Your task to perform on an android device: Do I have any events tomorrow? Image 0: 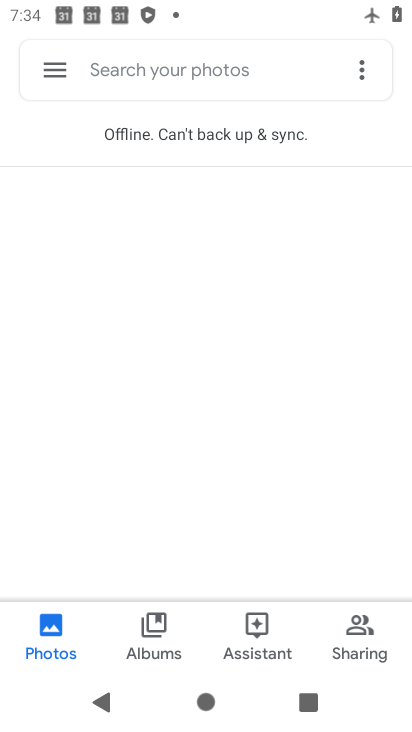
Step 0: press home button
Your task to perform on an android device: Do I have any events tomorrow? Image 1: 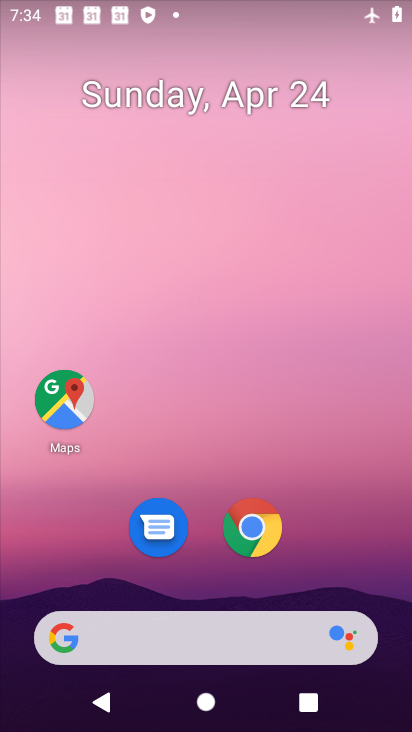
Step 1: drag from (349, 562) to (246, 26)
Your task to perform on an android device: Do I have any events tomorrow? Image 2: 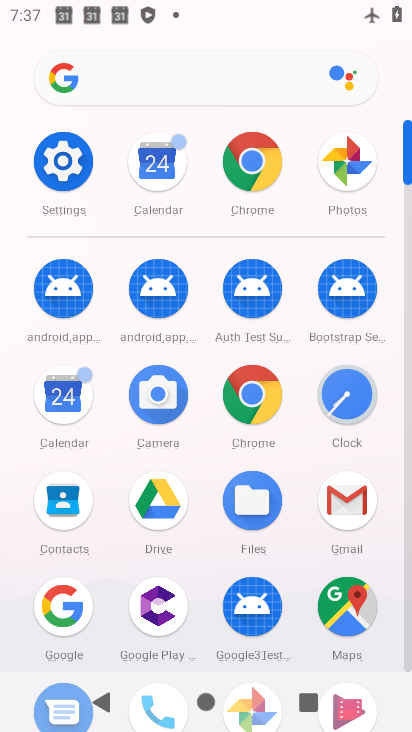
Step 2: click (74, 409)
Your task to perform on an android device: Do I have any events tomorrow? Image 3: 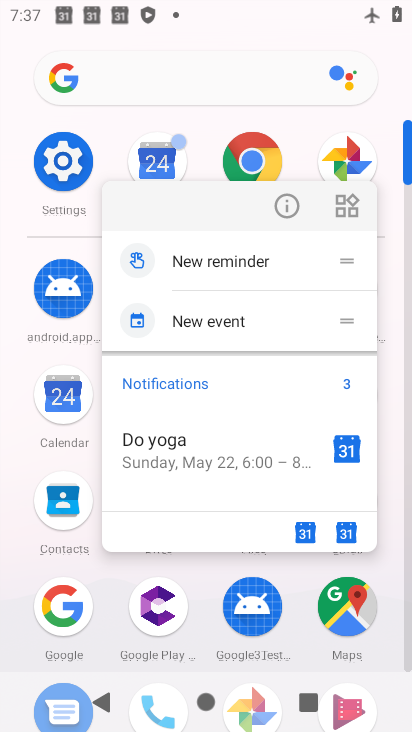
Step 3: click (63, 392)
Your task to perform on an android device: Do I have any events tomorrow? Image 4: 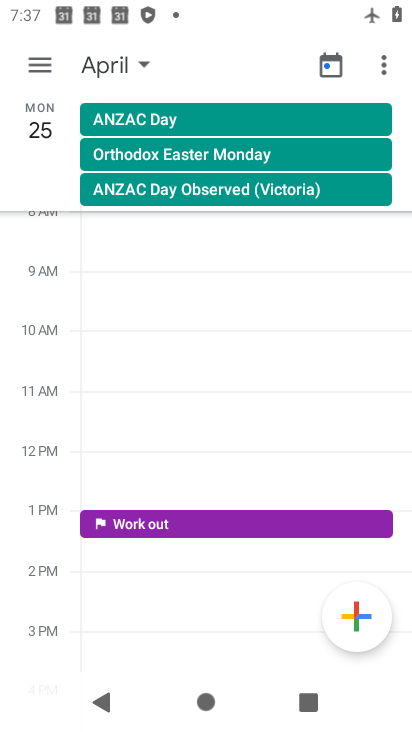
Step 4: click (112, 66)
Your task to perform on an android device: Do I have any events tomorrow? Image 5: 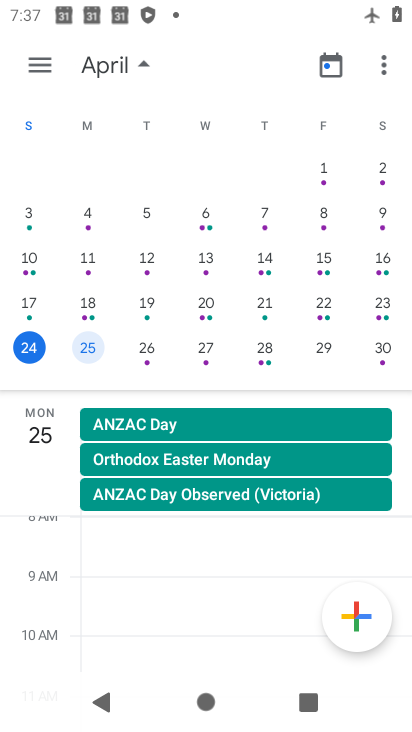
Step 5: click (149, 354)
Your task to perform on an android device: Do I have any events tomorrow? Image 6: 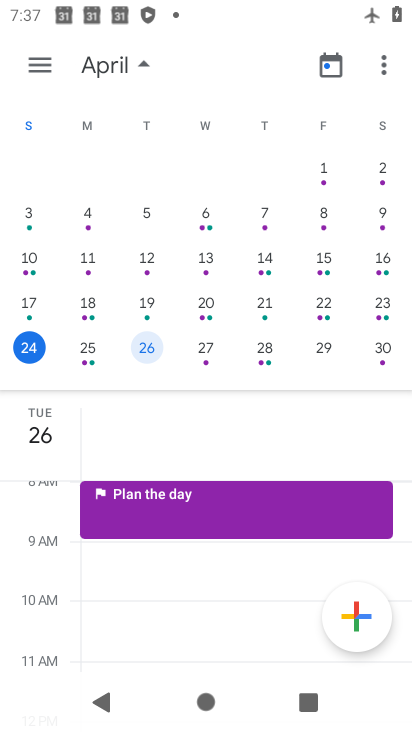
Step 6: click (172, 526)
Your task to perform on an android device: Do I have any events tomorrow? Image 7: 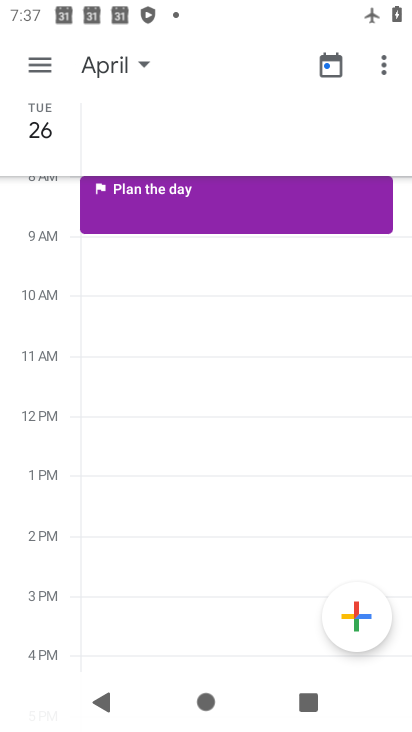
Step 7: task complete